Your task to perform on an android device: add a label to a message in the gmail app Image 0: 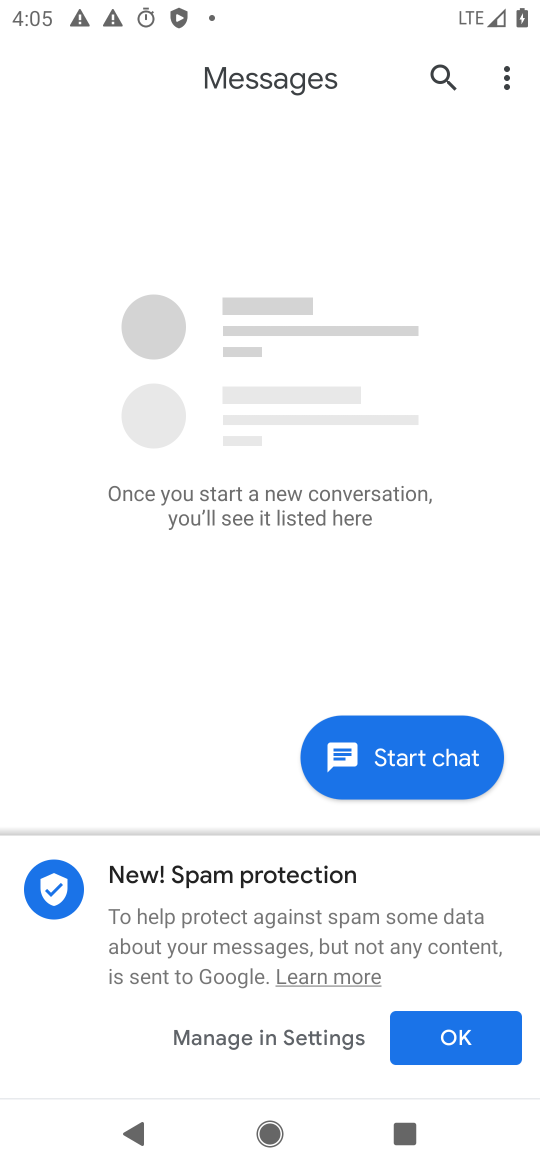
Step 0: press home button
Your task to perform on an android device: add a label to a message in the gmail app Image 1: 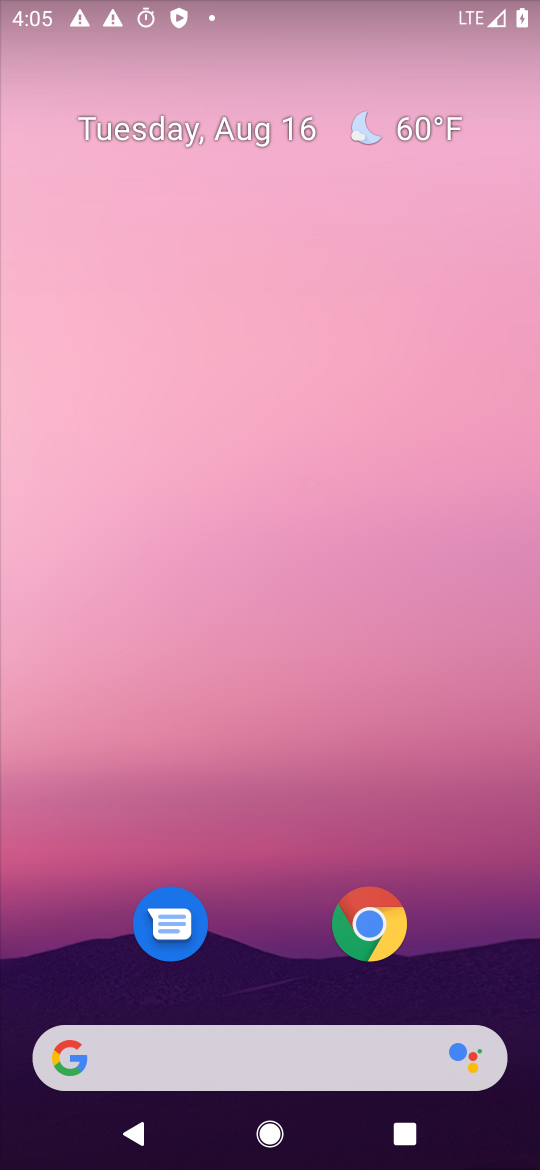
Step 1: drag from (226, 995) to (245, 126)
Your task to perform on an android device: add a label to a message in the gmail app Image 2: 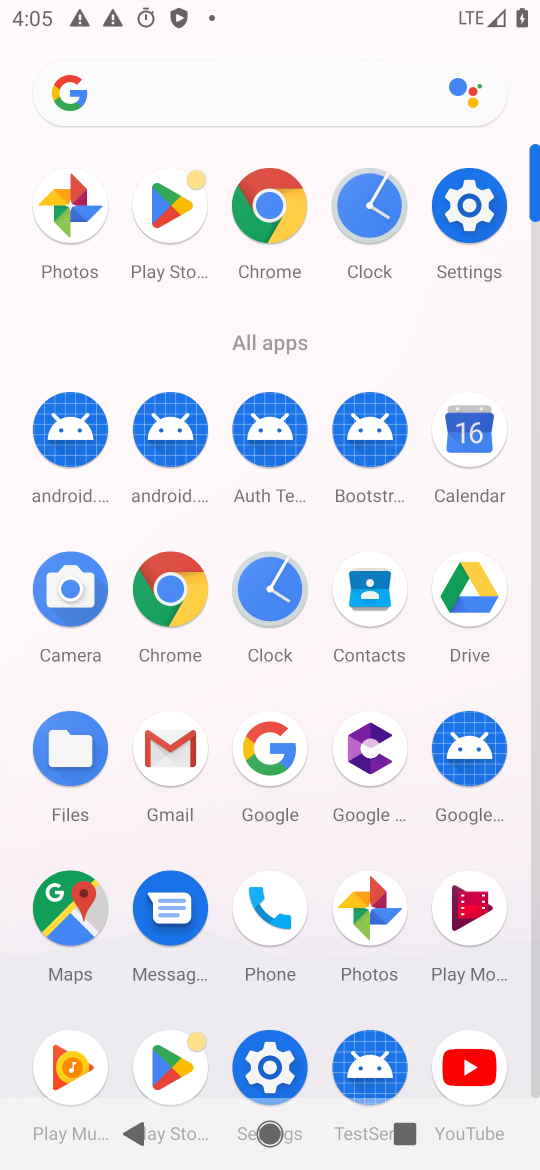
Step 2: click (162, 752)
Your task to perform on an android device: add a label to a message in the gmail app Image 3: 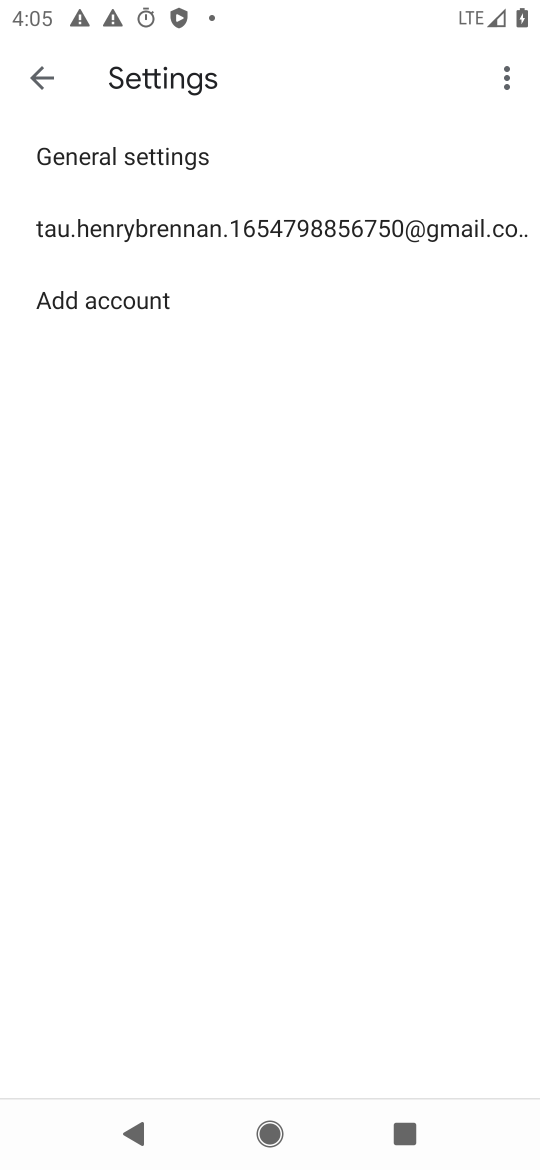
Step 3: click (32, 79)
Your task to perform on an android device: add a label to a message in the gmail app Image 4: 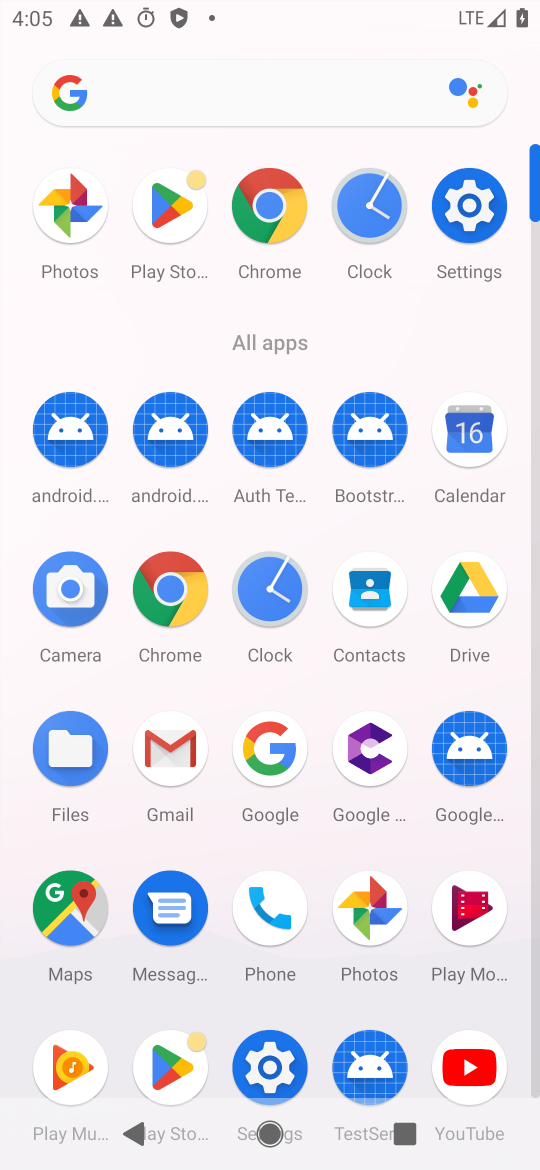
Step 4: click (187, 722)
Your task to perform on an android device: add a label to a message in the gmail app Image 5: 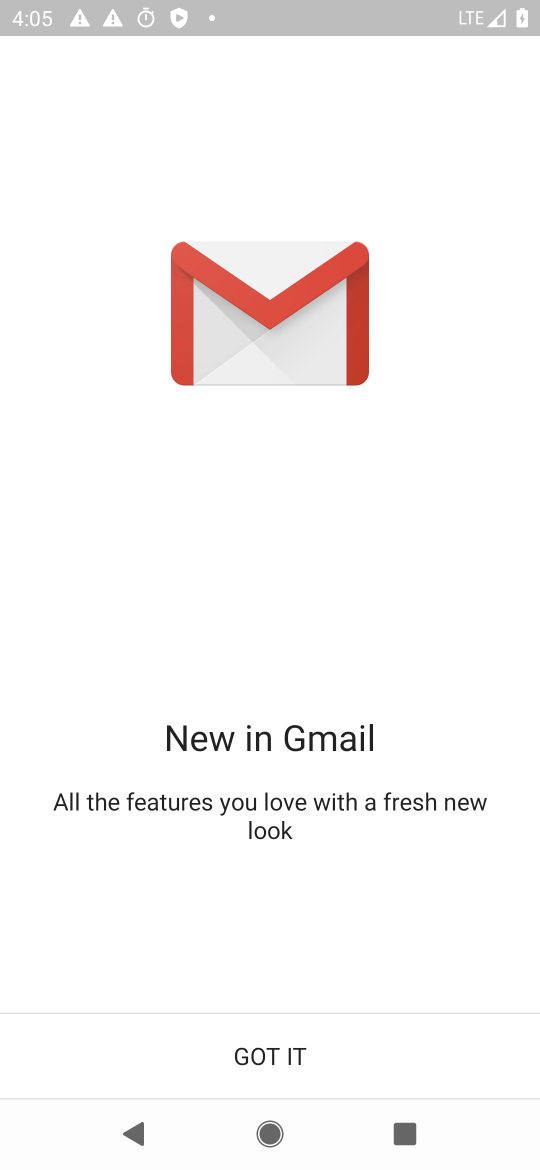
Step 5: click (320, 1041)
Your task to perform on an android device: add a label to a message in the gmail app Image 6: 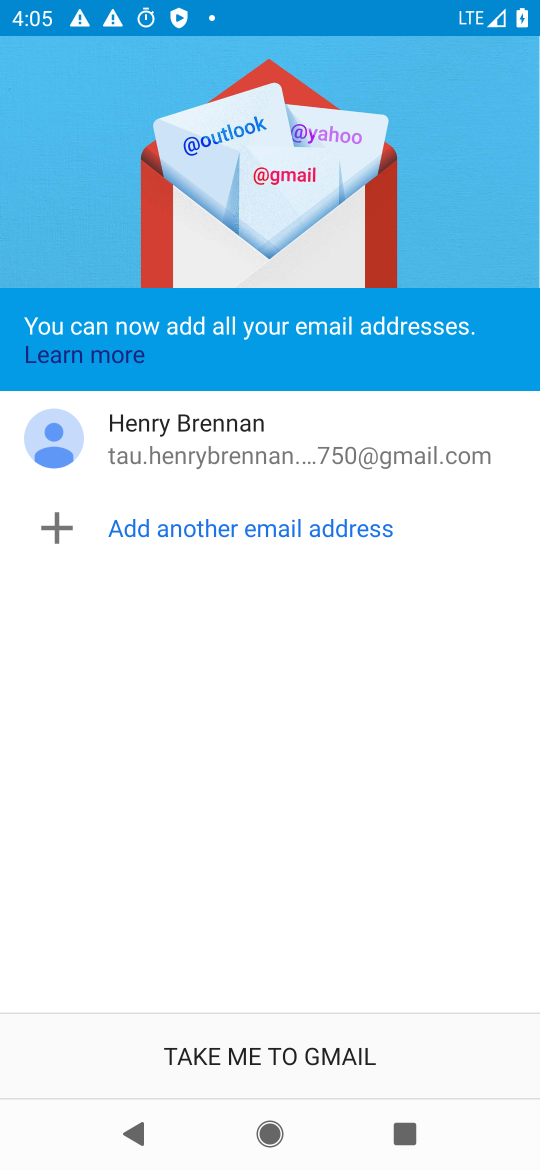
Step 6: click (320, 1041)
Your task to perform on an android device: add a label to a message in the gmail app Image 7: 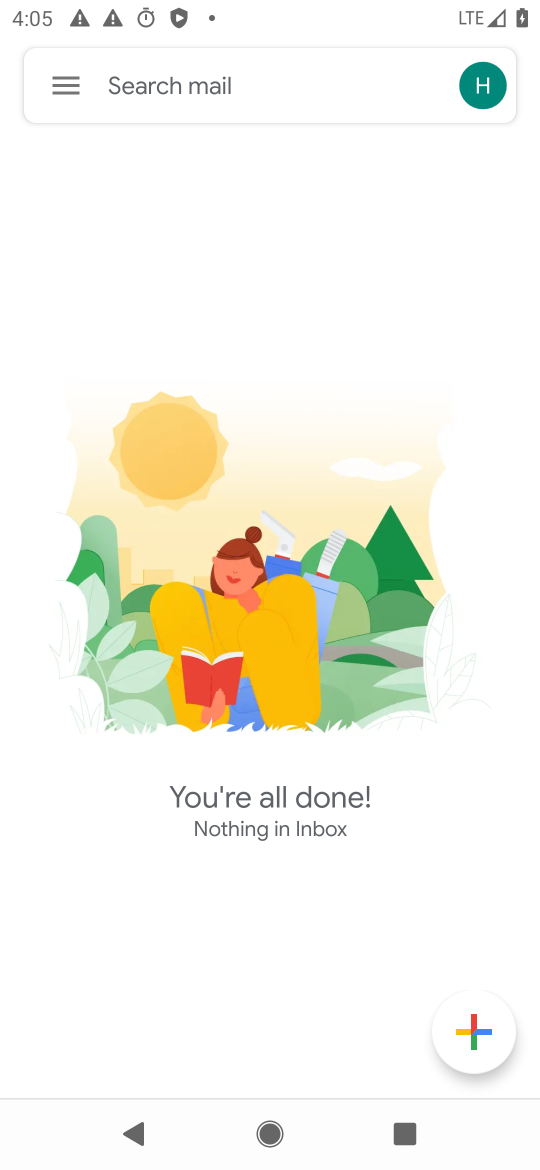
Step 7: click (45, 74)
Your task to perform on an android device: add a label to a message in the gmail app Image 8: 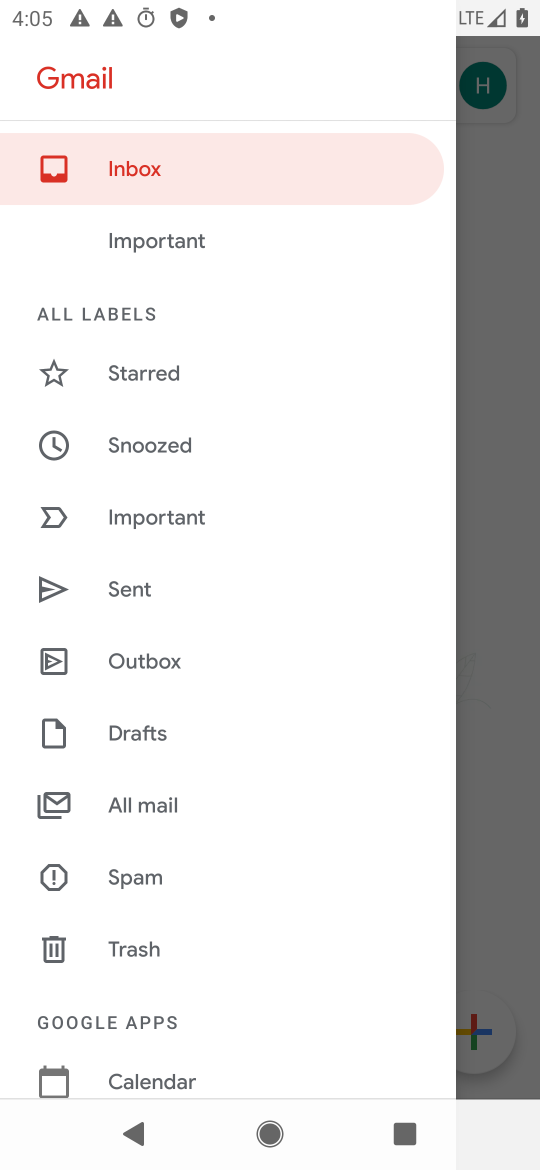
Step 8: click (204, 828)
Your task to perform on an android device: add a label to a message in the gmail app Image 9: 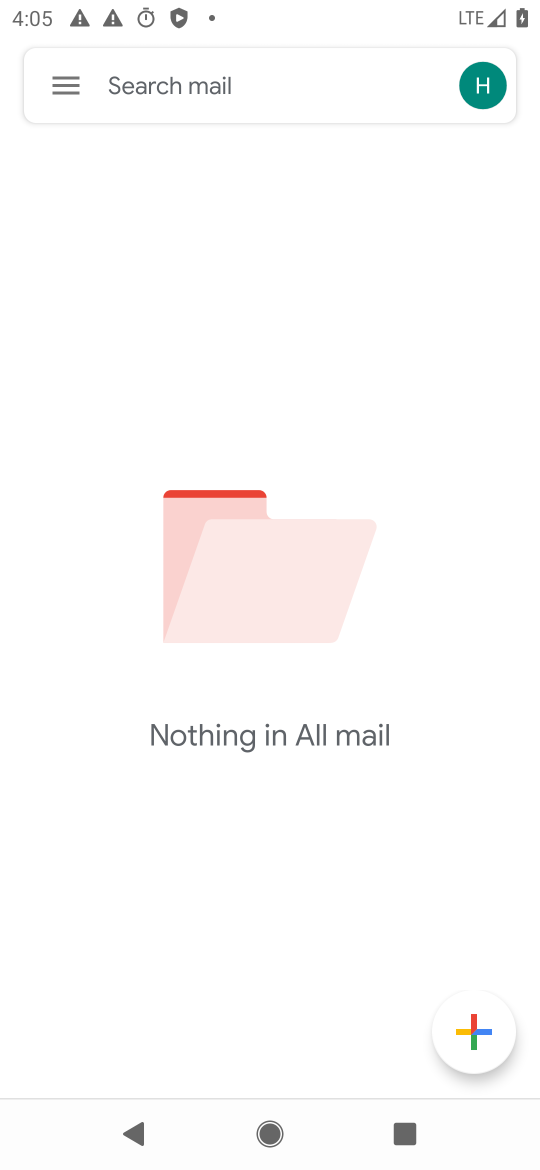
Step 9: task complete